Your task to perform on an android device: turn on wifi Image 0: 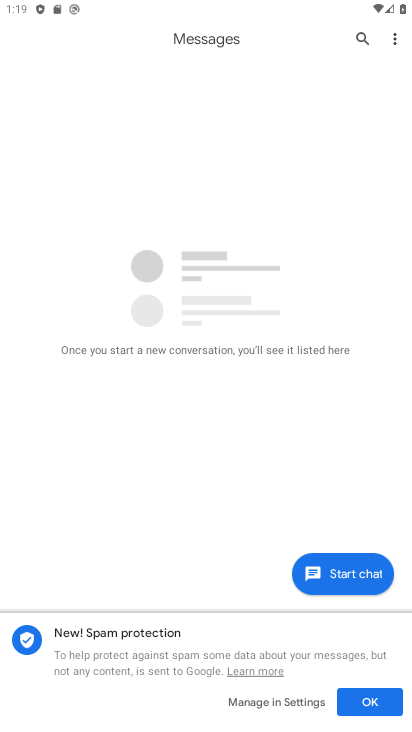
Step 0: press home button
Your task to perform on an android device: turn on wifi Image 1: 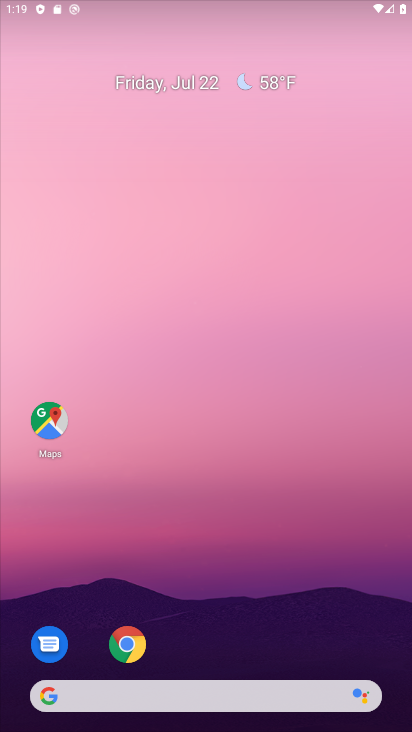
Step 1: drag from (194, 677) to (193, 289)
Your task to perform on an android device: turn on wifi Image 2: 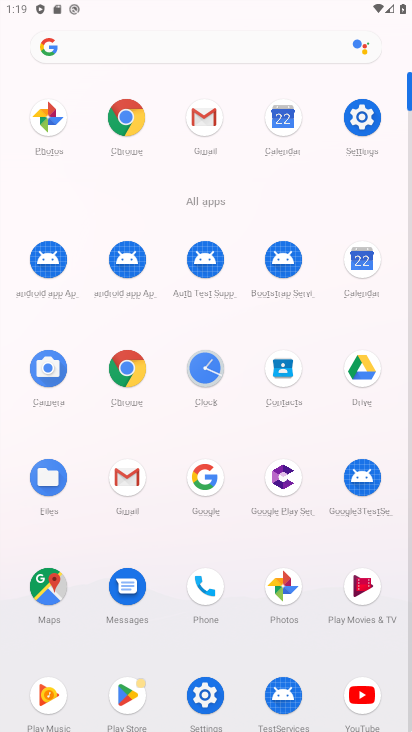
Step 2: click (369, 111)
Your task to perform on an android device: turn on wifi Image 3: 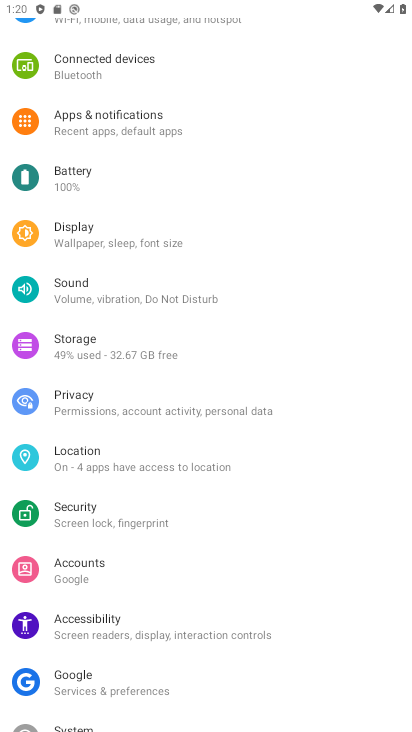
Step 3: drag from (121, 44) to (146, 428)
Your task to perform on an android device: turn on wifi Image 4: 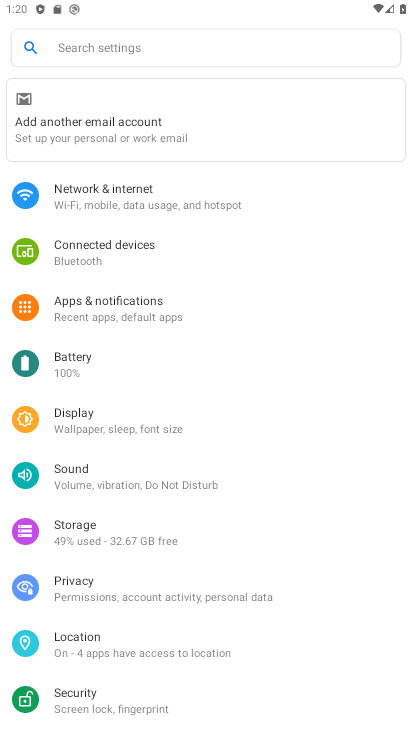
Step 4: click (126, 203)
Your task to perform on an android device: turn on wifi Image 5: 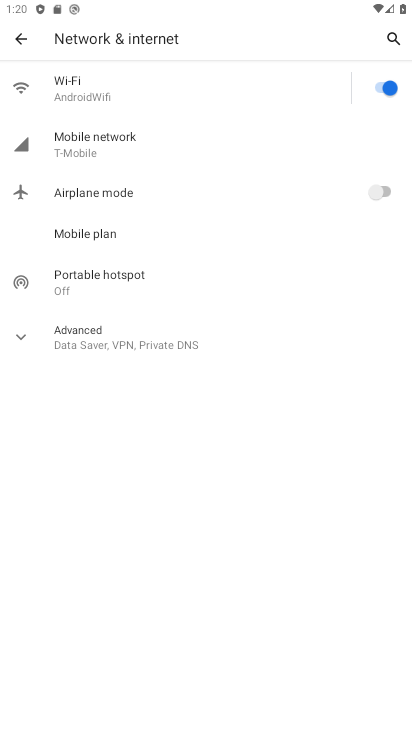
Step 5: click (116, 336)
Your task to perform on an android device: turn on wifi Image 6: 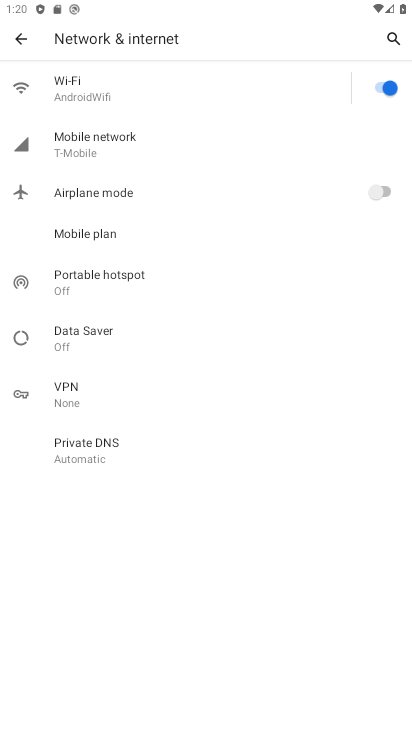
Step 6: task complete